Your task to perform on an android device: Open the Play Movies app and select the watchlist tab. Image 0: 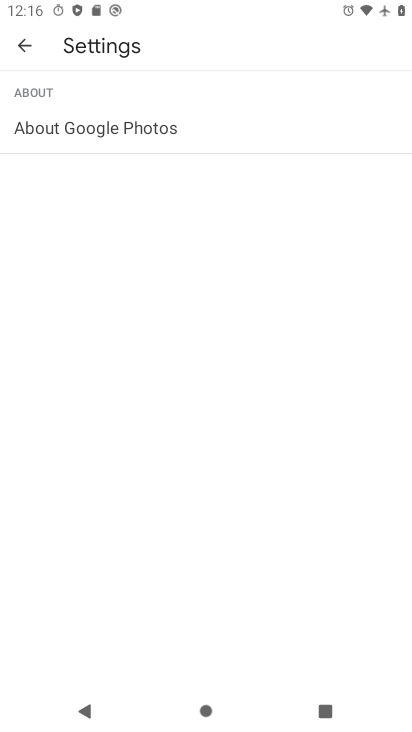
Step 0: press home button
Your task to perform on an android device: Open the Play Movies app and select the watchlist tab. Image 1: 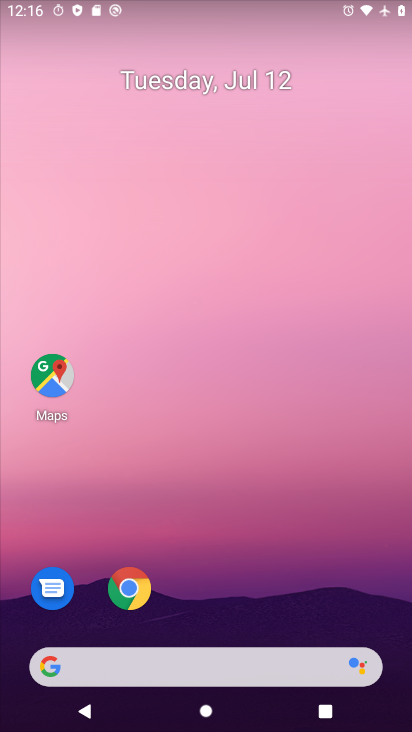
Step 1: drag from (180, 664) to (260, 104)
Your task to perform on an android device: Open the Play Movies app and select the watchlist tab. Image 2: 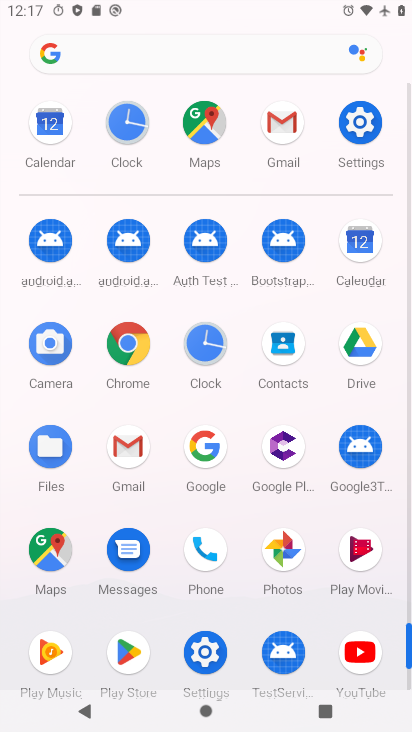
Step 2: click (359, 551)
Your task to perform on an android device: Open the Play Movies app and select the watchlist tab. Image 3: 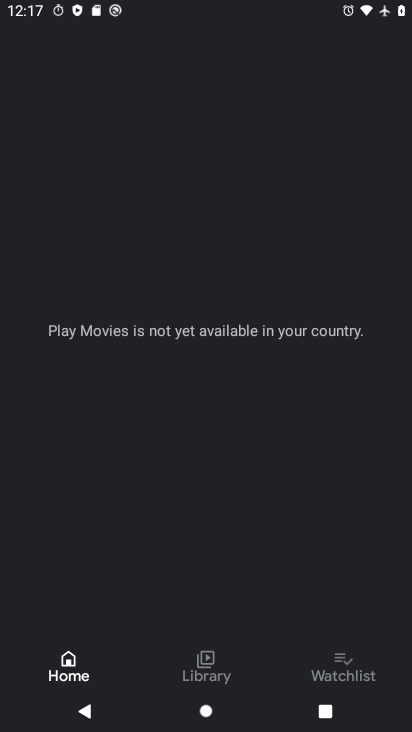
Step 3: click (346, 665)
Your task to perform on an android device: Open the Play Movies app and select the watchlist tab. Image 4: 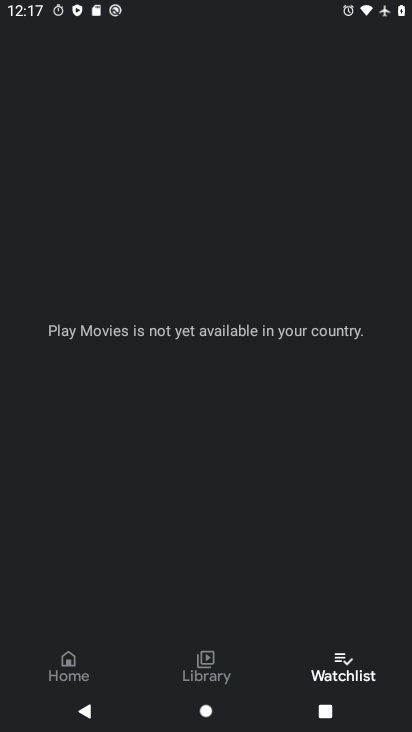
Step 4: task complete